Your task to perform on an android device: turn off notifications settings in the gmail app Image 0: 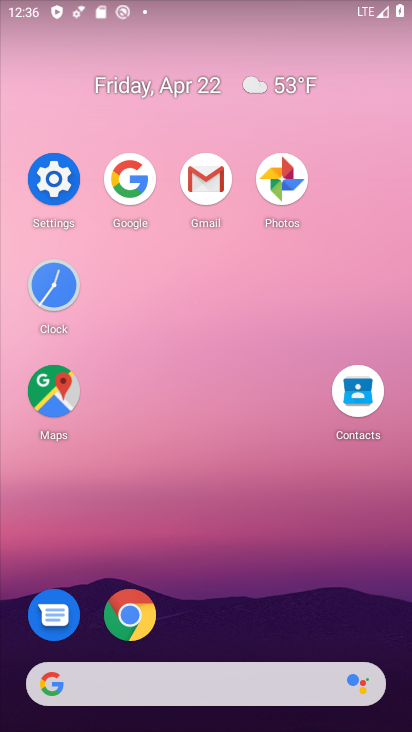
Step 0: click (206, 191)
Your task to perform on an android device: turn off notifications settings in the gmail app Image 1: 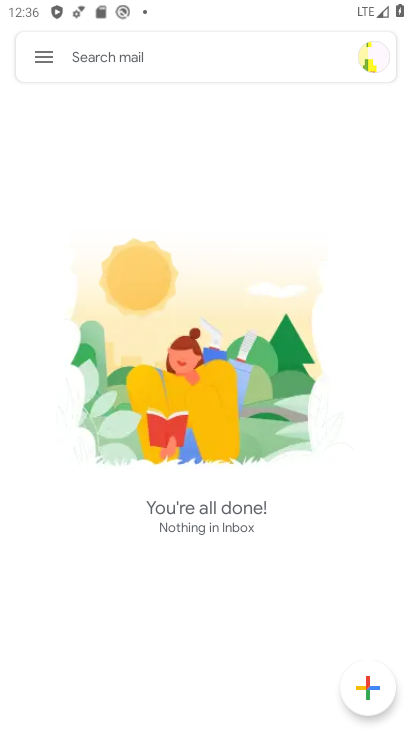
Step 1: click (52, 70)
Your task to perform on an android device: turn off notifications settings in the gmail app Image 2: 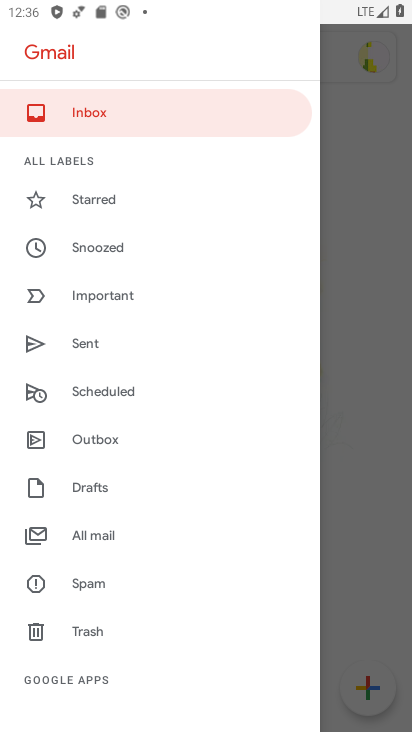
Step 2: drag from (198, 576) to (206, 159)
Your task to perform on an android device: turn off notifications settings in the gmail app Image 3: 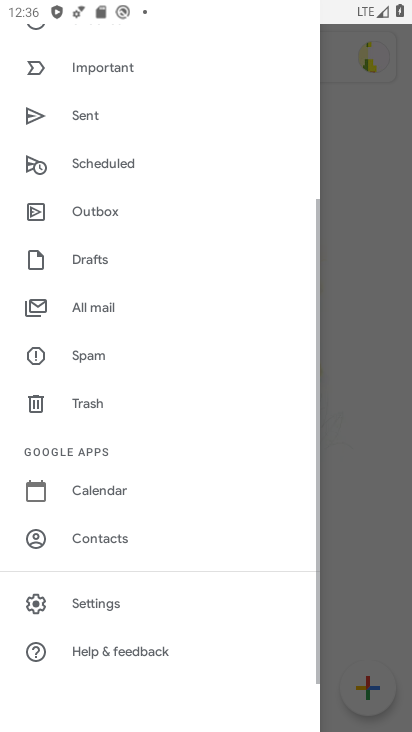
Step 3: click (97, 601)
Your task to perform on an android device: turn off notifications settings in the gmail app Image 4: 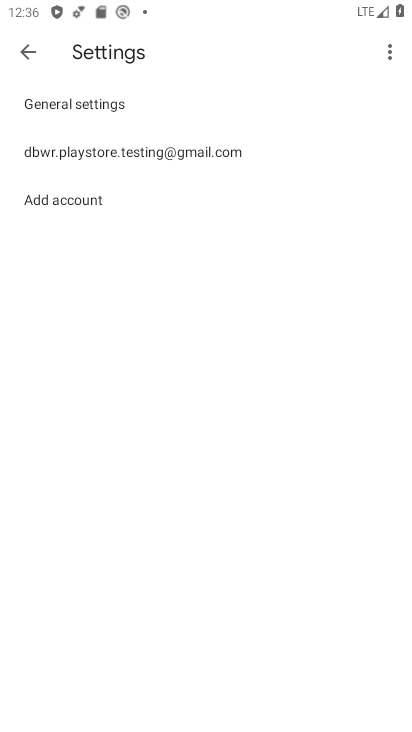
Step 4: click (194, 142)
Your task to perform on an android device: turn off notifications settings in the gmail app Image 5: 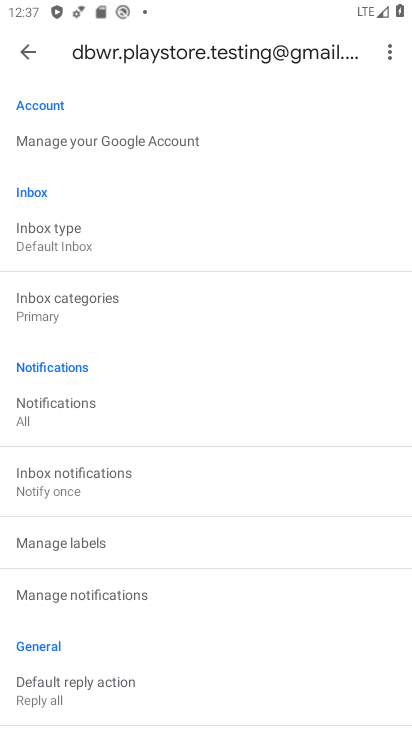
Step 5: click (80, 410)
Your task to perform on an android device: turn off notifications settings in the gmail app Image 6: 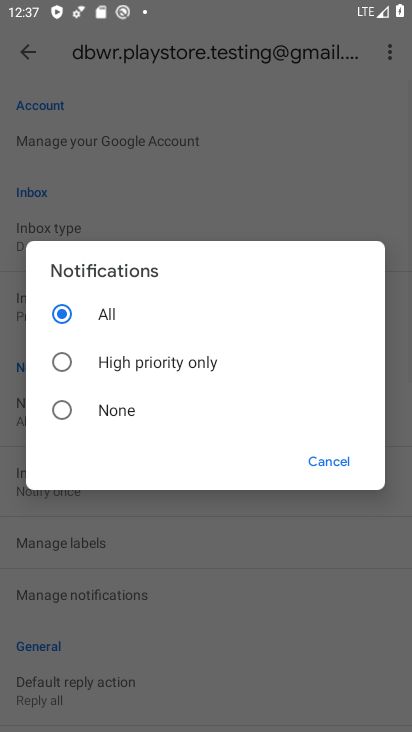
Step 6: click (88, 412)
Your task to perform on an android device: turn off notifications settings in the gmail app Image 7: 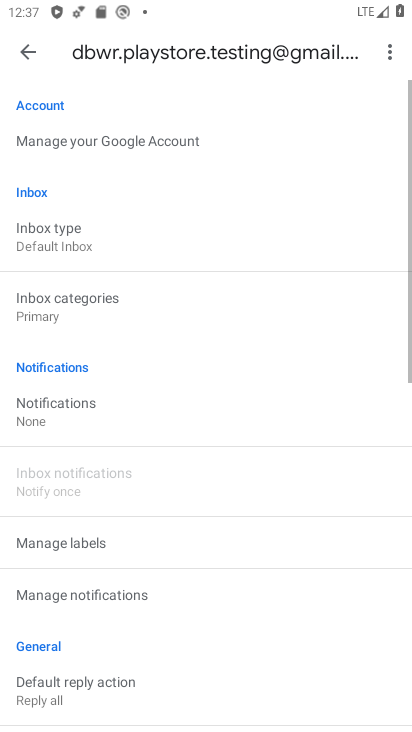
Step 7: task complete